Your task to perform on an android device: turn off notifications settings in the gmail app Image 0: 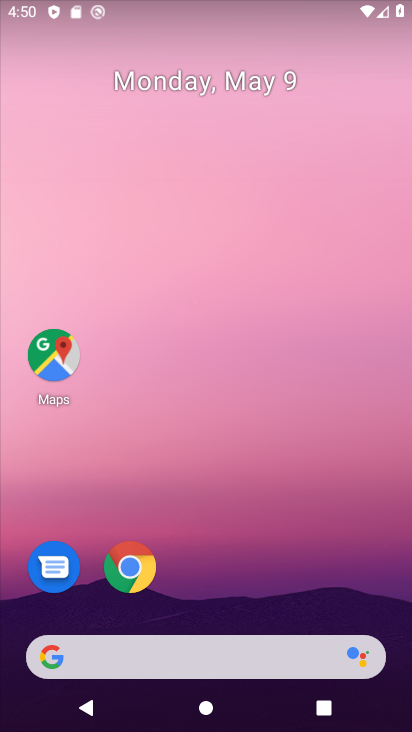
Step 0: drag from (205, 607) to (218, 136)
Your task to perform on an android device: turn off notifications settings in the gmail app Image 1: 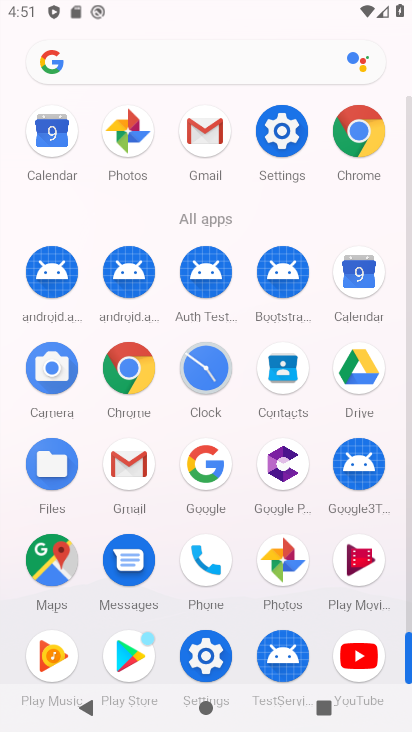
Step 1: click (211, 166)
Your task to perform on an android device: turn off notifications settings in the gmail app Image 2: 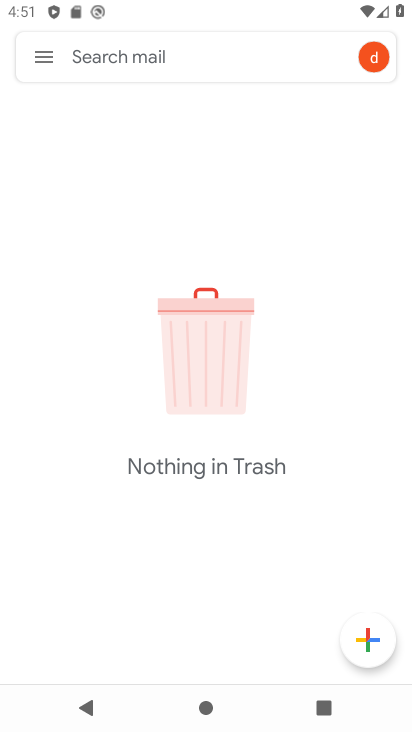
Step 2: click (38, 65)
Your task to perform on an android device: turn off notifications settings in the gmail app Image 3: 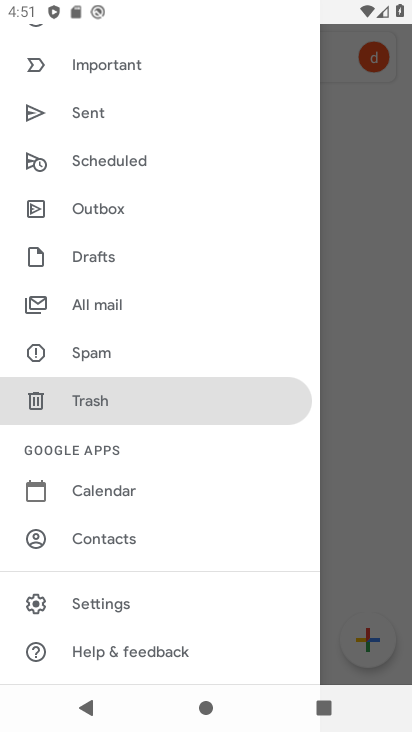
Step 3: click (101, 603)
Your task to perform on an android device: turn off notifications settings in the gmail app Image 4: 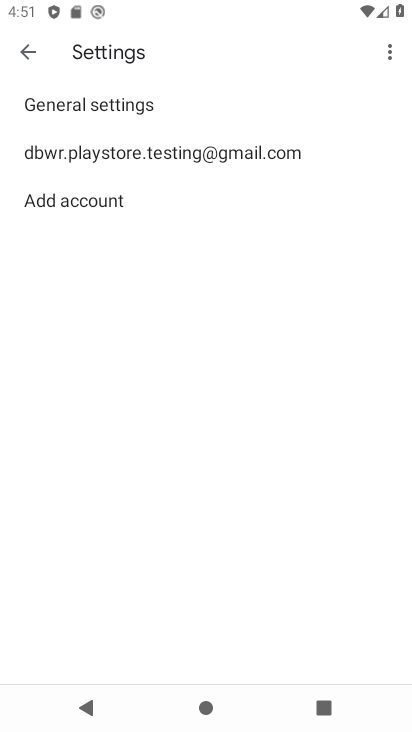
Step 4: click (100, 160)
Your task to perform on an android device: turn off notifications settings in the gmail app Image 5: 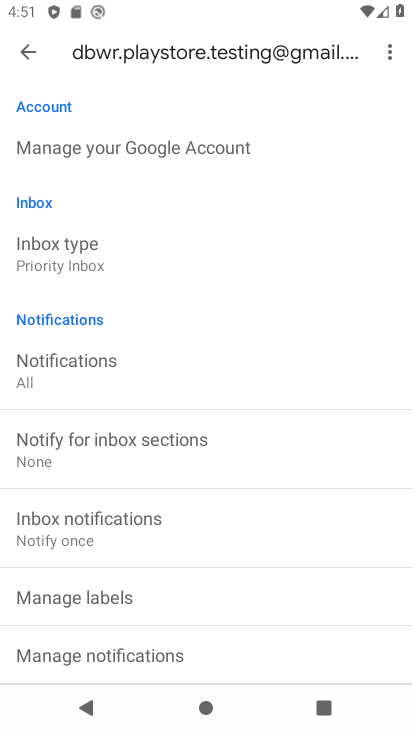
Step 5: click (61, 362)
Your task to perform on an android device: turn off notifications settings in the gmail app Image 6: 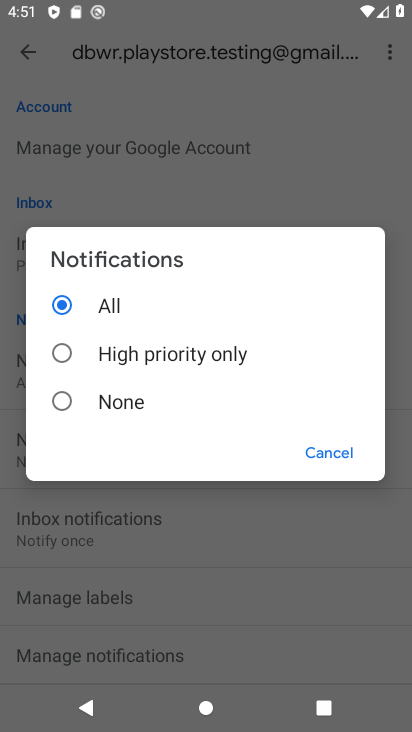
Step 6: click (73, 423)
Your task to perform on an android device: turn off notifications settings in the gmail app Image 7: 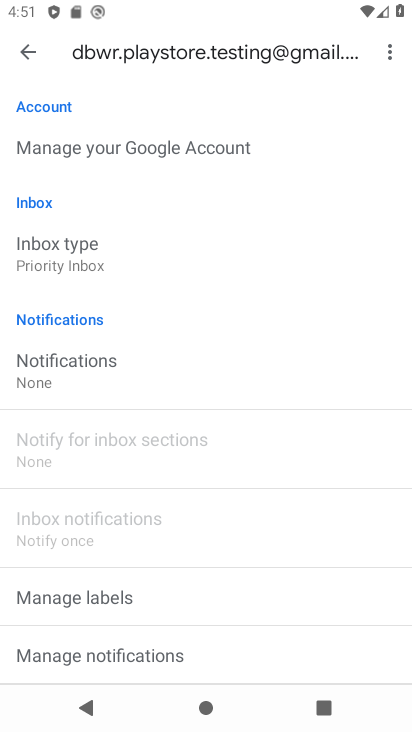
Step 7: task complete